Your task to perform on an android device: Open Maps and search for coffee Image 0: 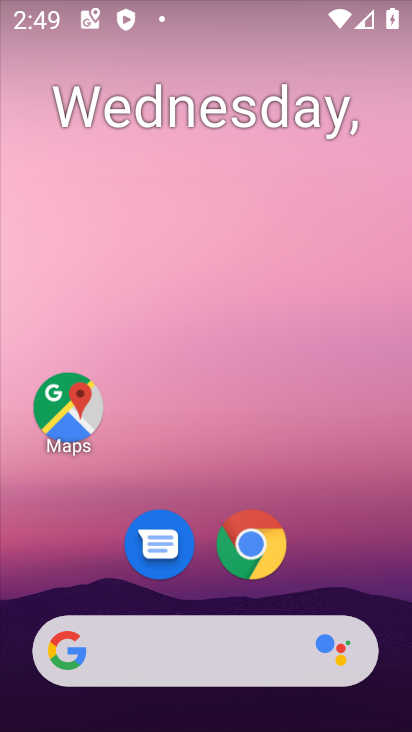
Step 0: drag from (380, 598) to (310, 280)
Your task to perform on an android device: Open Maps and search for coffee Image 1: 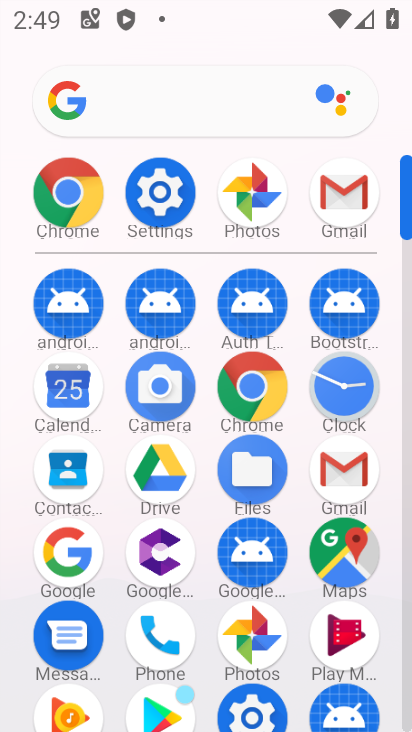
Step 1: click (333, 561)
Your task to perform on an android device: Open Maps and search for coffee Image 2: 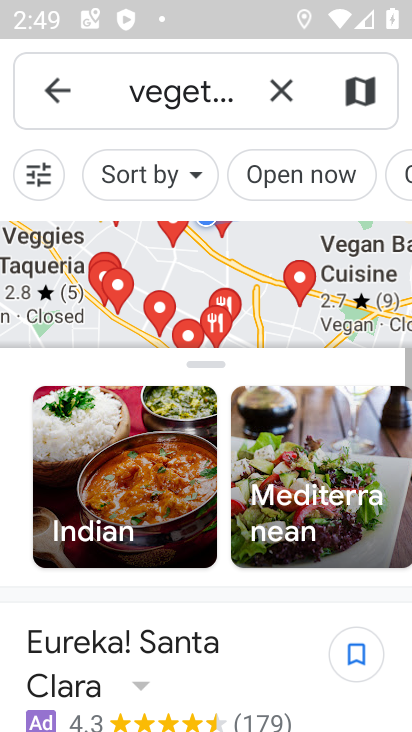
Step 2: click (287, 87)
Your task to perform on an android device: Open Maps and search for coffee Image 3: 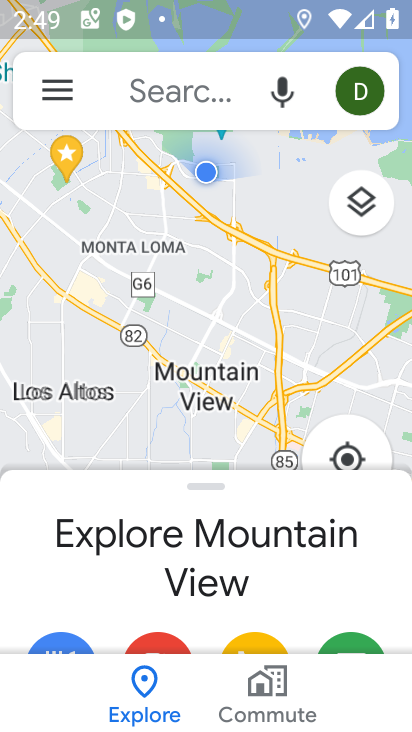
Step 3: click (177, 97)
Your task to perform on an android device: Open Maps and search for coffee Image 4: 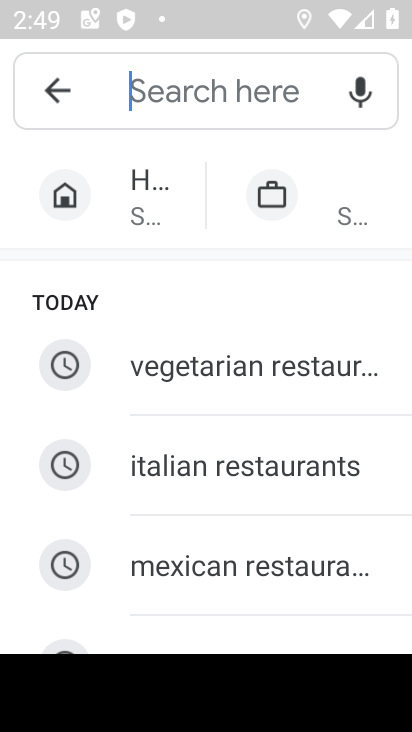
Step 4: type "coffee"
Your task to perform on an android device: Open Maps and search for coffee Image 5: 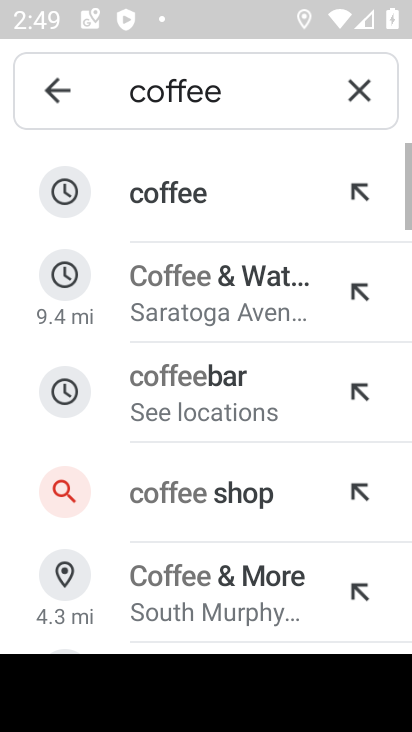
Step 5: click (157, 227)
Your task to perform on an android device: Open Maps and search for coffee Image 6: 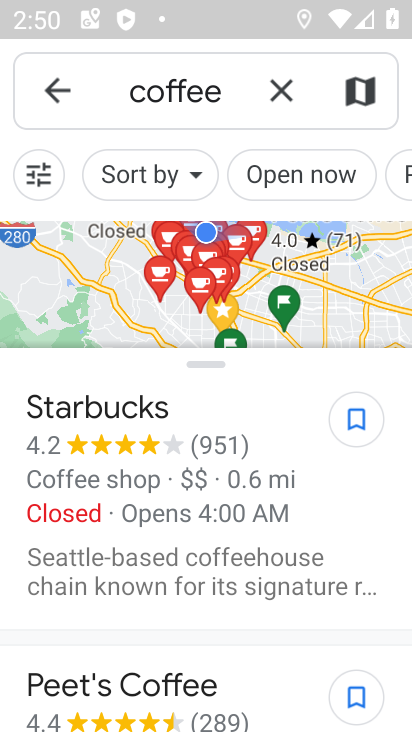
Step 6: task complete